Your task to perform on an android device: Open Amazon Image 0: 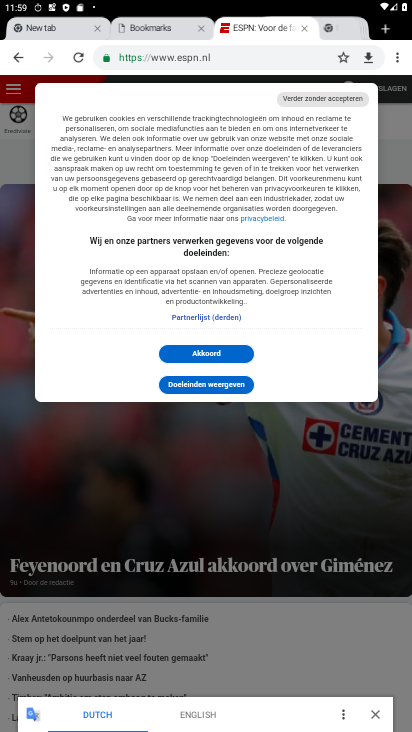
Step 0: press home button
Your task to perform on an android device: Open Amazon Image 1: 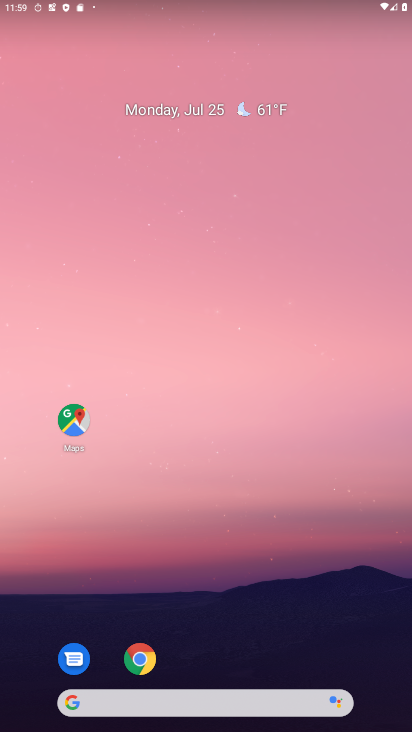
Step 1: click (110, 702)
Your task to perform on an android device: Open Amazon Image 2: 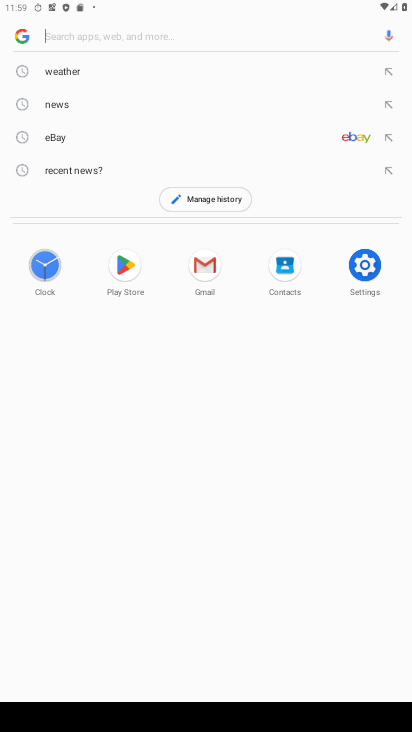
Step 2: type "Amazon"
Your task to perform on an android device: Open Amazon Image 3: 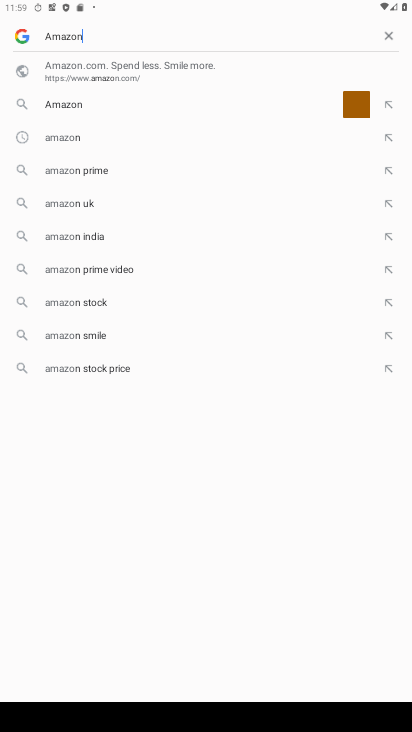
Step 3: type ""
Your task to perform on an android device: Open Amazon Image 4: 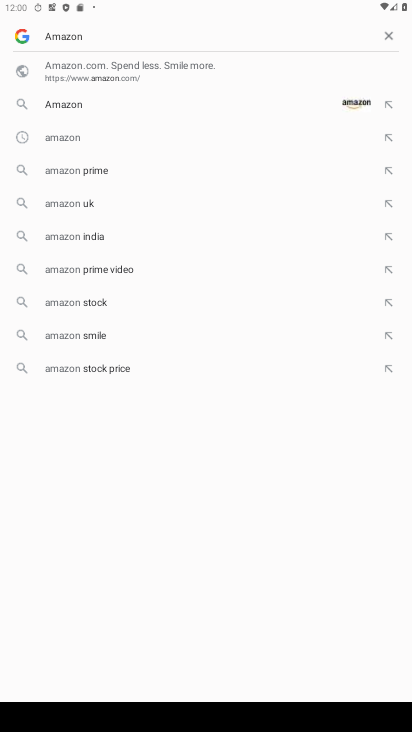
Step 4: click (74, 113)
Your task to perform on an android device: Open Amazon Image 5: 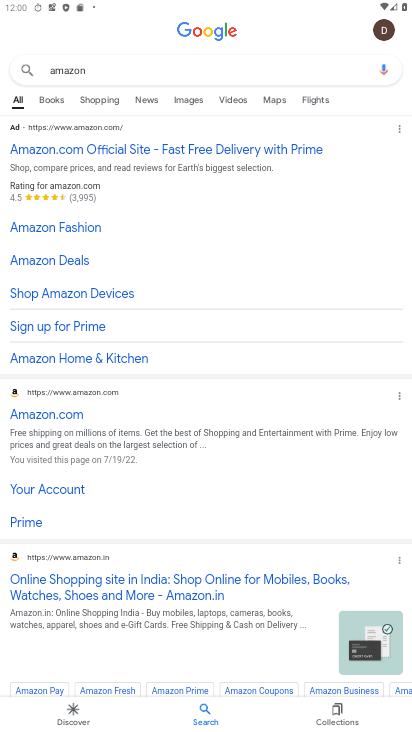
Step 5: task complete